Your task to perform on an android device: change text size in settings app Image 0: 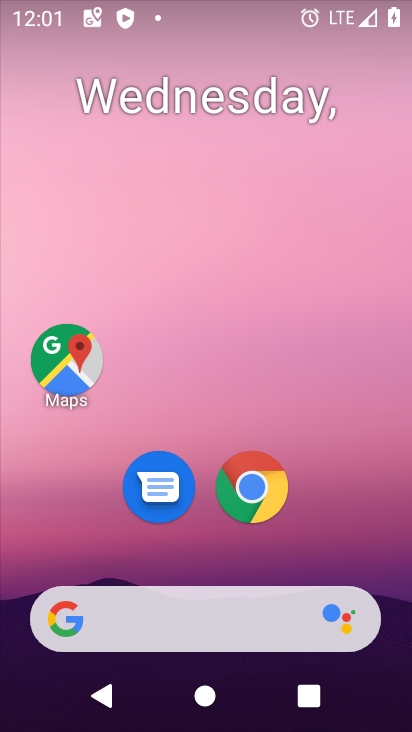
Step 0: drag from (276, 34) to (357, 31)
Your task to perform on an android device: change text size in settings app Image 1: 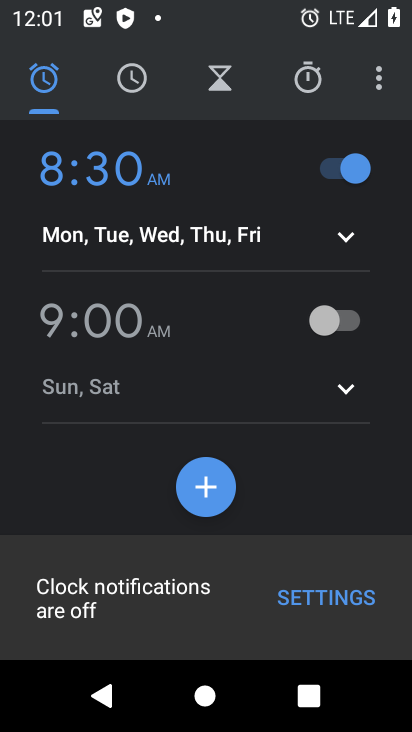
Step 1: press home button
Your task to perform on an android device: change text size in settings app Image 2: 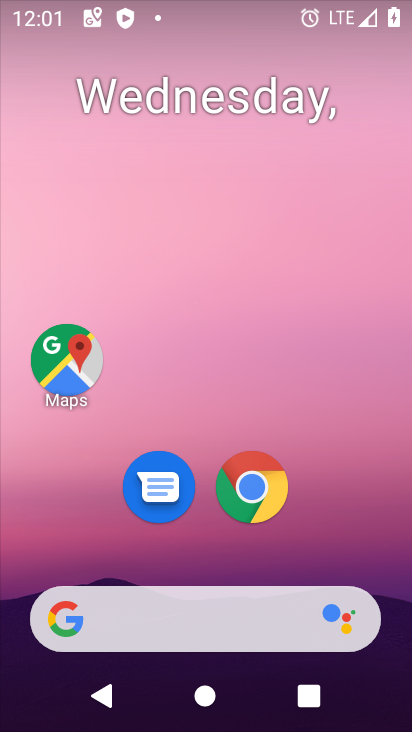
Step 2: drag from (172, 573) to (246, 71)
Your task to perform on an android device: change text size in settings app Image 3: 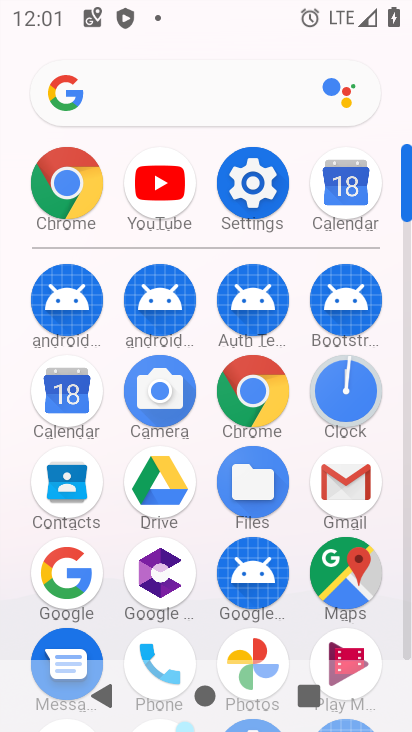
Step 3: click (251, 177)
Your task to perform on an android device: change text size in settings app Image 4: 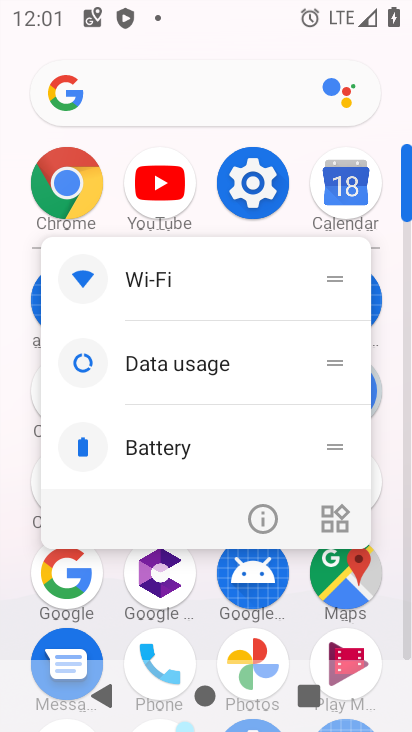
Step 4: click (275, 508)
Your task to perform on an android device: change text size in settings app Image 5: 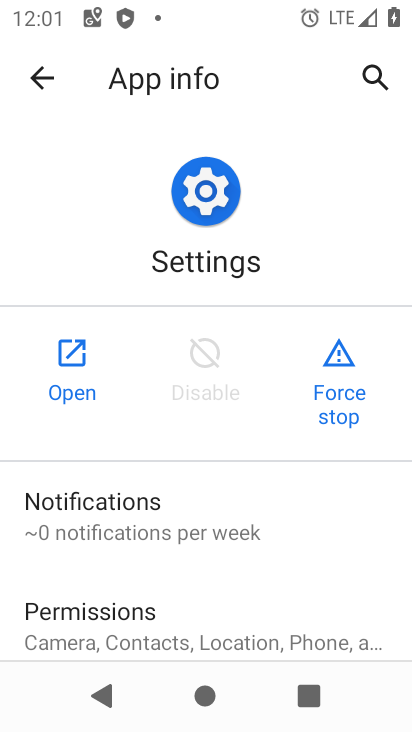
Step 5: click (73, 341)
Your task to perform on an android device: change text size in settings app Image 6: 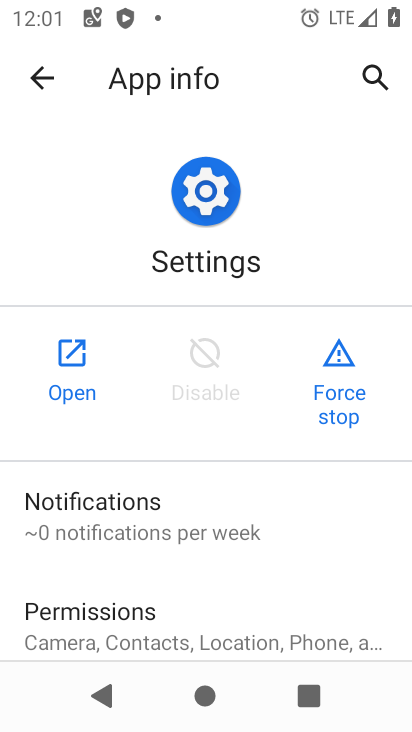
Step 6: click (73, 341)
Your task to perform on an android device: change text size in settings app Image 7: 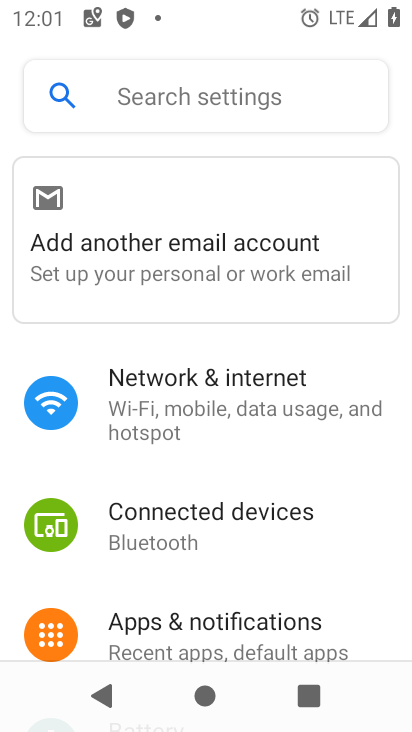
Step 7: drag from (234, 574) to (302, 128)
Your task to perform on an android device: change text size in settings app Image 8: 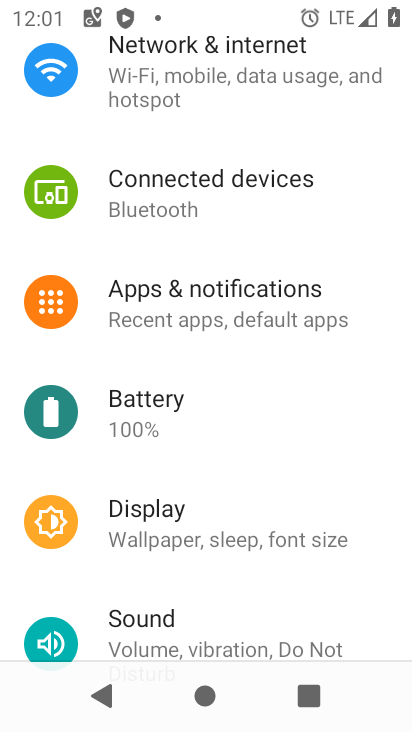
Step 8: drag from (237, 499) to (308, 85)
Your task to perform on an android device: change text size in settings app Image 9: 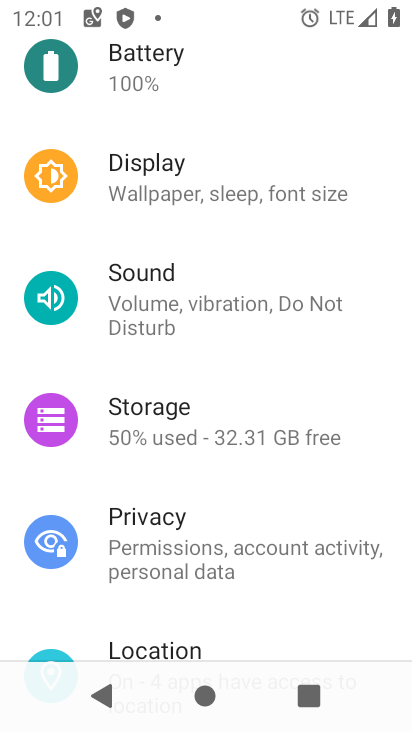
Step 9: drag from (256, 85) to (264, 630)
Your task to perform on an android device: change text size in settings app Image 10: 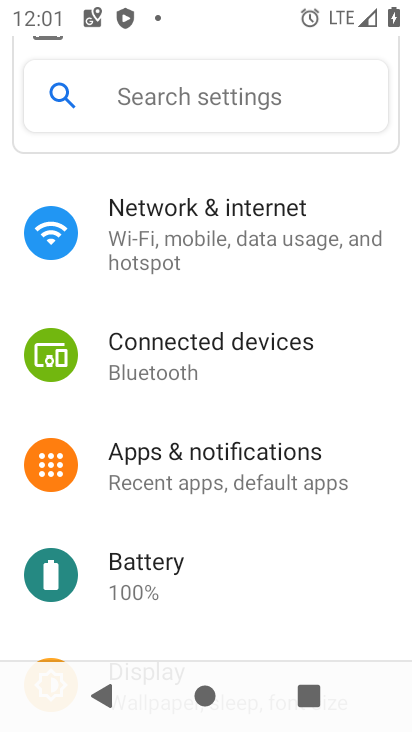
Step 10: drag from (229, 572) to (276, 183)
Your task to perform on an android device: change text size in settings app Image 11: 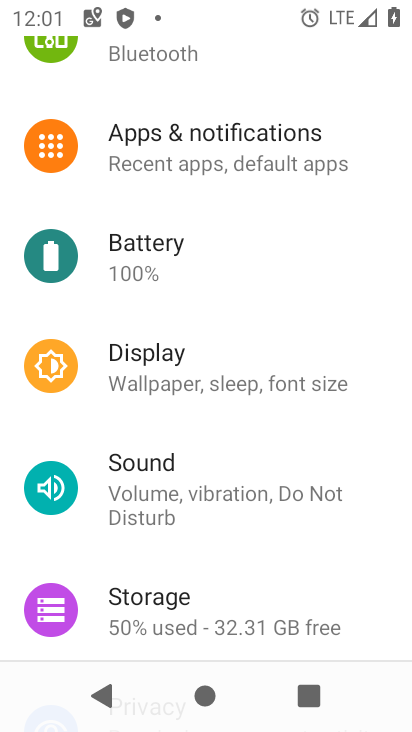
Step 11: click (214, 339)
Your task to perform on an android device: change text size in settings app Image 12: 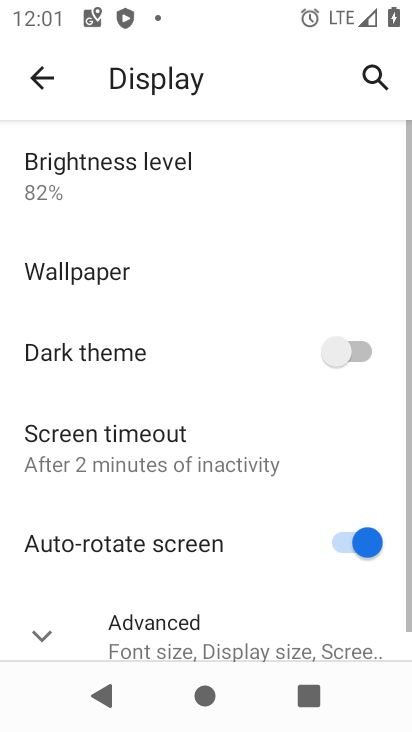
Step 12: drag from (158, 563) to (242, 132)
Your task to perform on an android device: change text size in settings app Image 13: 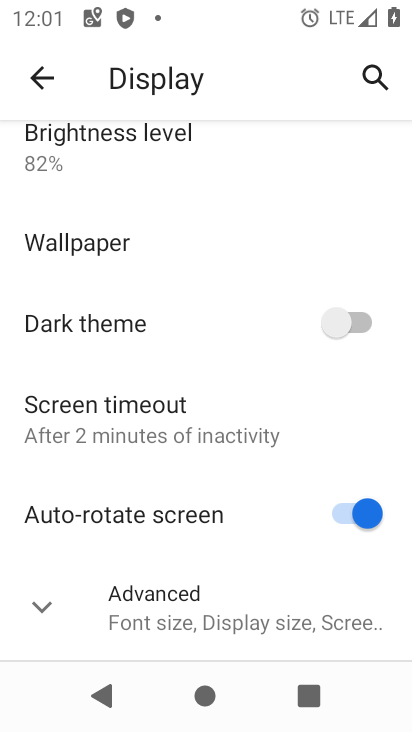
Step 13: click (187, 617)
Your task to perform on an android device: change text size in settings app Image 14: 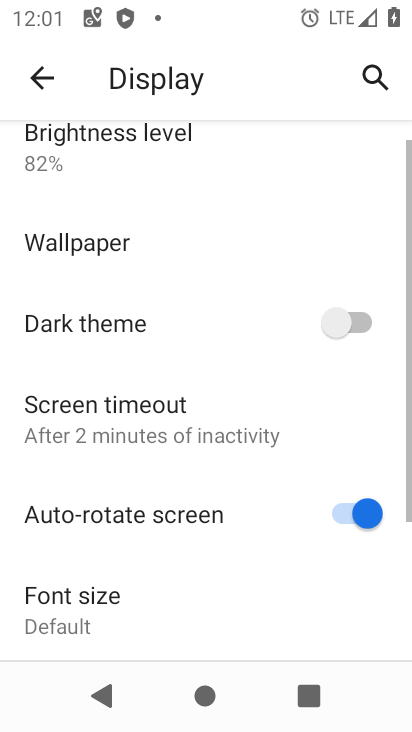
Step 14: drag from (190, 616) to (277, 171)
Your task to perform on an android device: change text size in settings app Image 15: 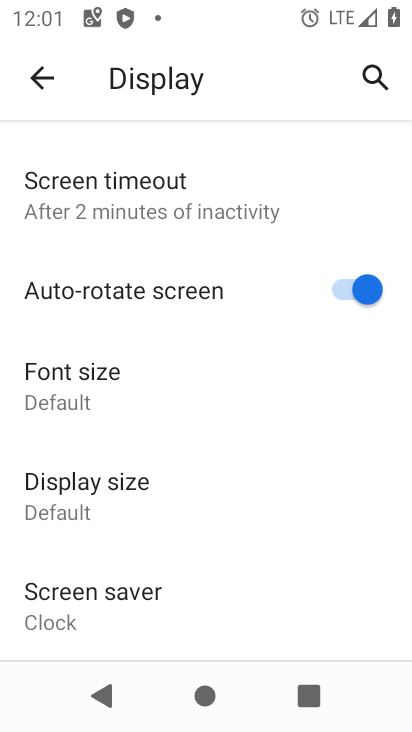
Step 15: click (132, 387)
Your task to perform on an android device: change text size in settings app Image 16: 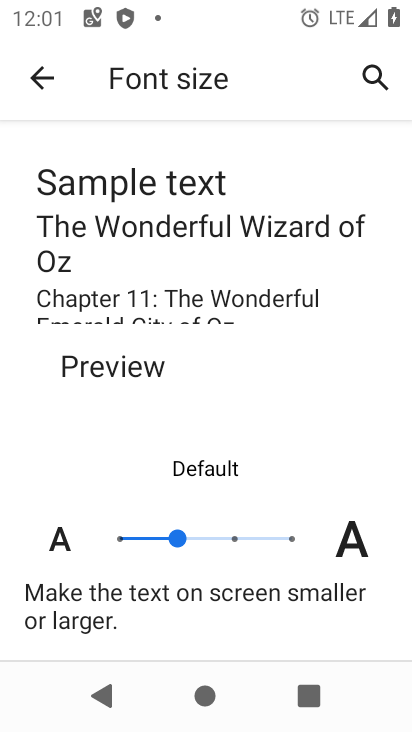
Step 16: click (132, 534)
Your task to perform on an android device: change text size in settings app Image 17: 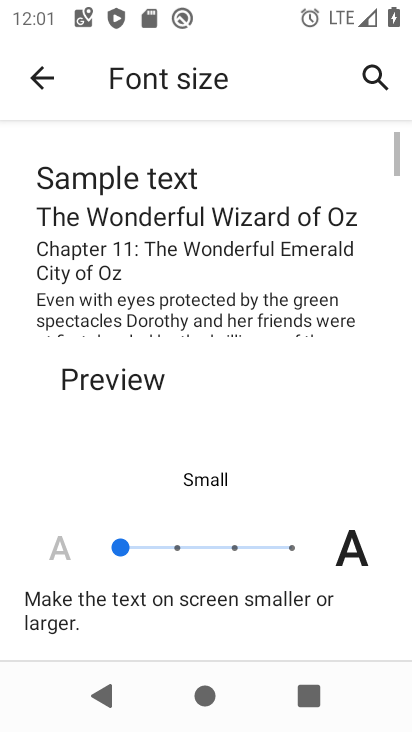
Step 17: task complete